Your task to perform on an android device: turn off data saver in the chrome app Image 0: 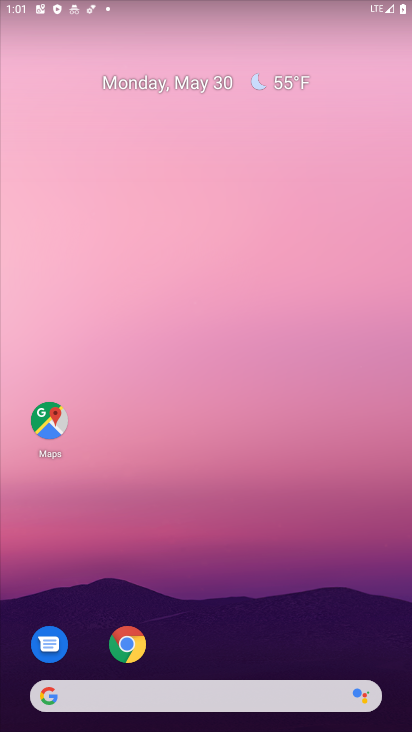
Step 0: click (148, 663)
Your task to perform on an android device: turn off data saver in the chrome app Image 1: 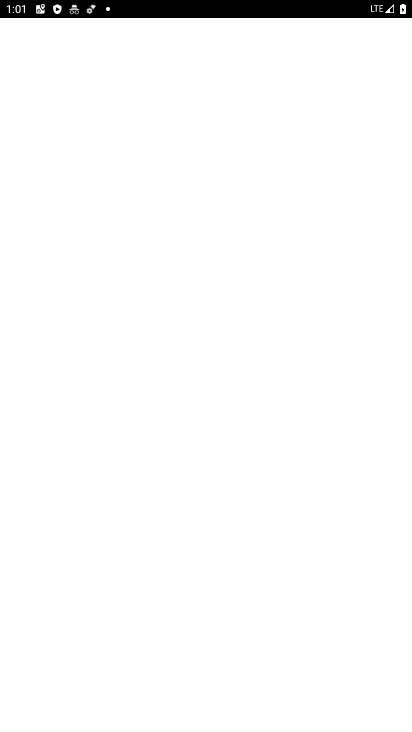
Step 1: click (124, 651)
Your task to perform on an android device: turn off data saver in the chrome app Image 2: 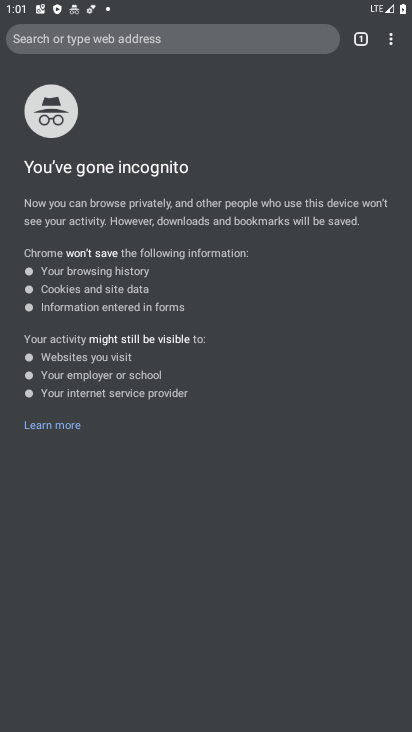
Step 2: click (399, 39)
Your task to perform on an android device: turn off data saver in the chrome app Image 3: 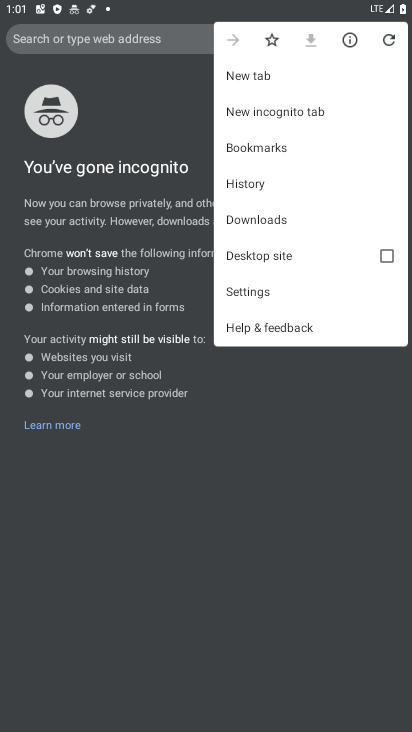
Step 3: click (274, 284)
Your task to perform on an android device: turn off data saver in the chrome app Image 4: 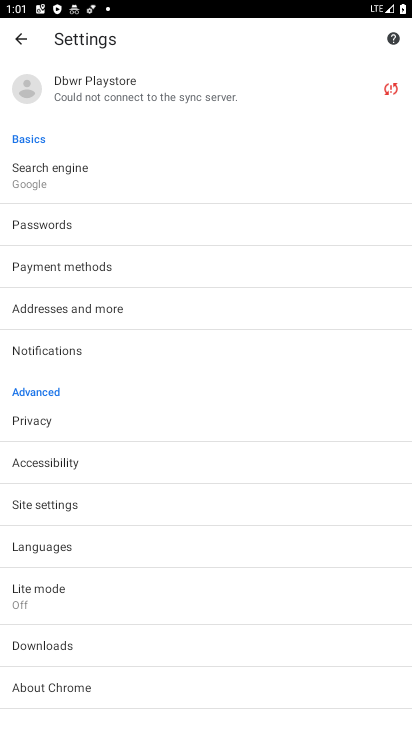
Step 4: click (214, 600)
Your task to perform on an android device: turn off data saver in the chrome app Image 5: 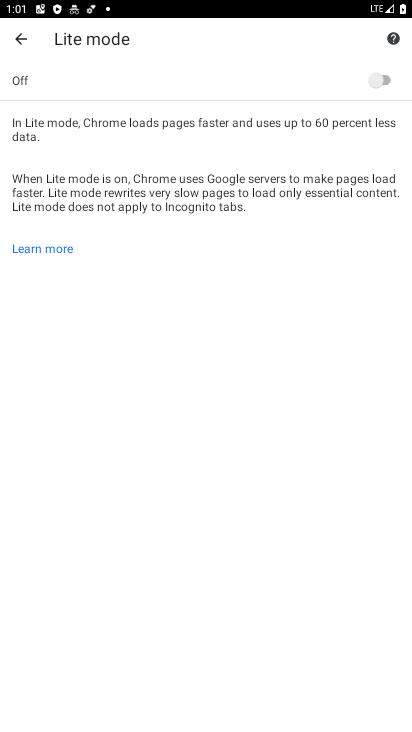
Step 5: click (366, 87)
Your task to perform on an android device: turn off data saver in the chrome app Image 6: 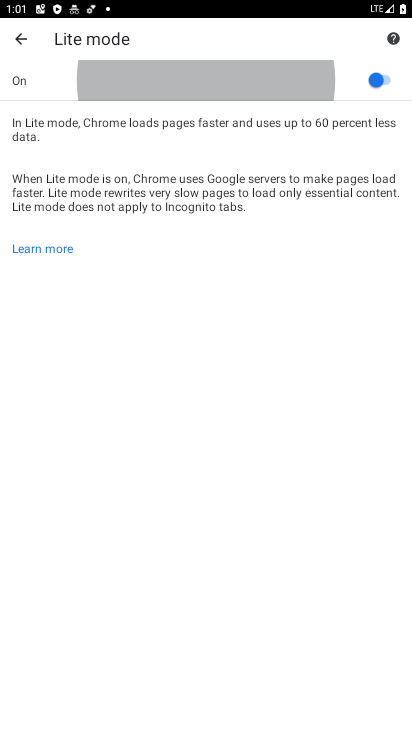
Step 6: click (366, 87)
Your task to perform on an android device: turn off data saver in the chrome app Image 7: 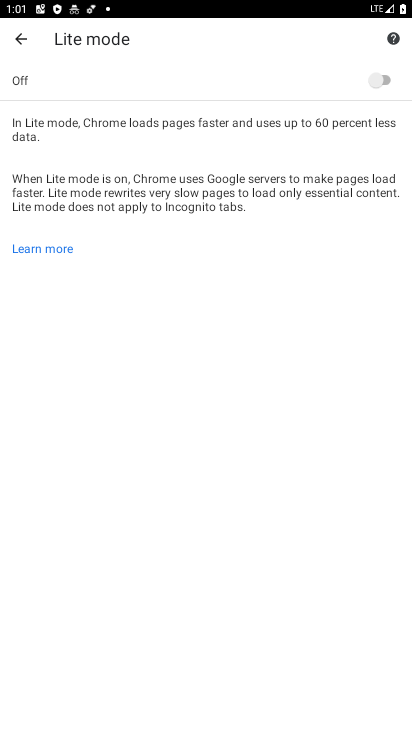
Step 7: task complete